Your task to perform on an android device: show emergency info Image 0: 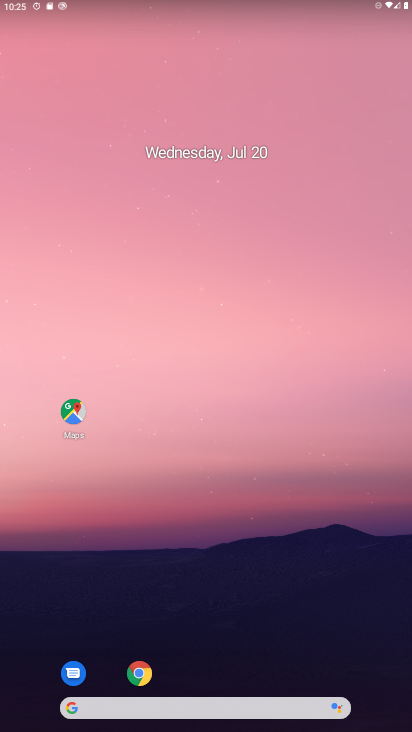
Step 0: drag from (356, 646) to (203, 78)
Your task to perform on an android device: show emergency info Image 1: 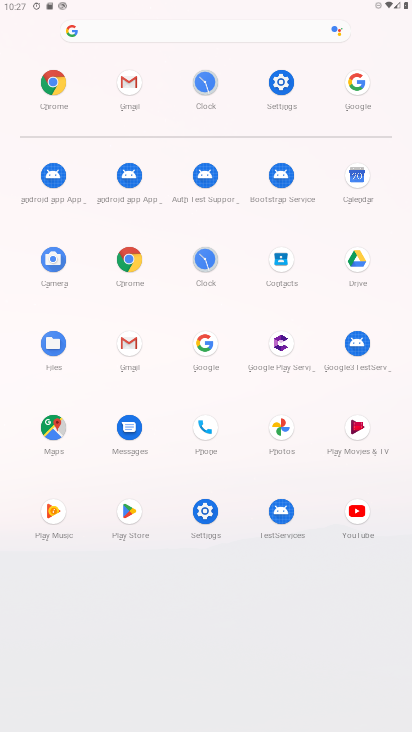
Step 1: click (209, 525)
Your task to perform on an android device: show emergency info Image 2: 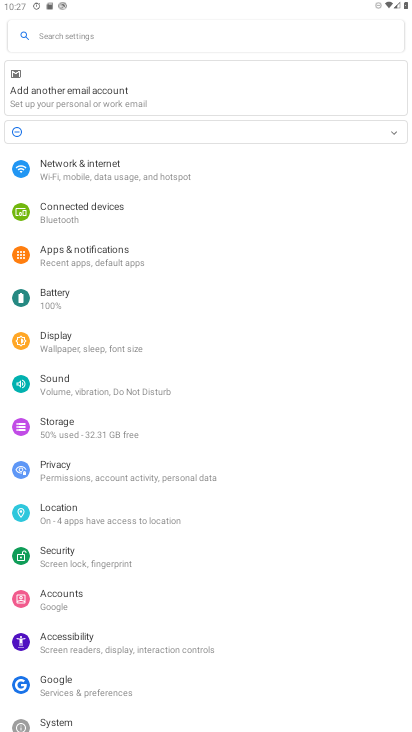
Step 2: drag from (109, 674) to (139, 124)
Your task to perform on an android device: show emergency info Image 3: 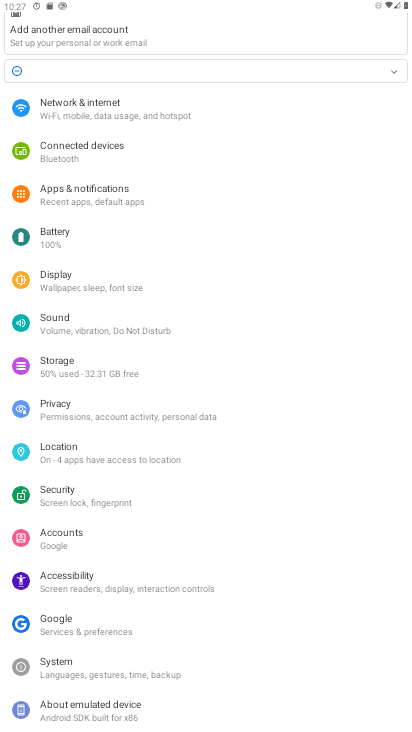
Step 3: click (89, 712)
Your task to perform on an android device: show emergency info Image 4: 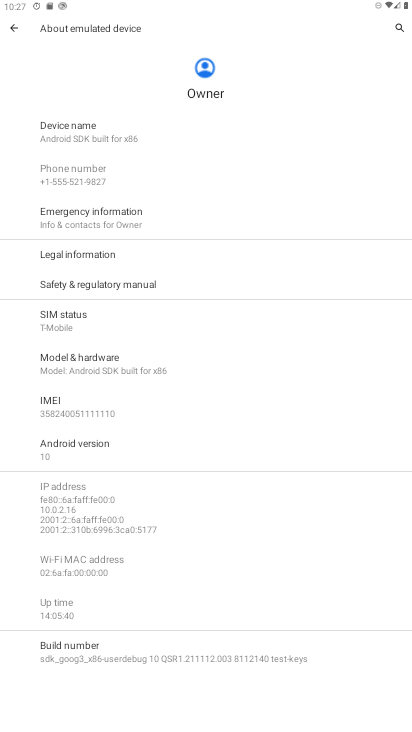
Step 4: click (116, 217)
Your task to perform on an android device: show emergency info Image 5: 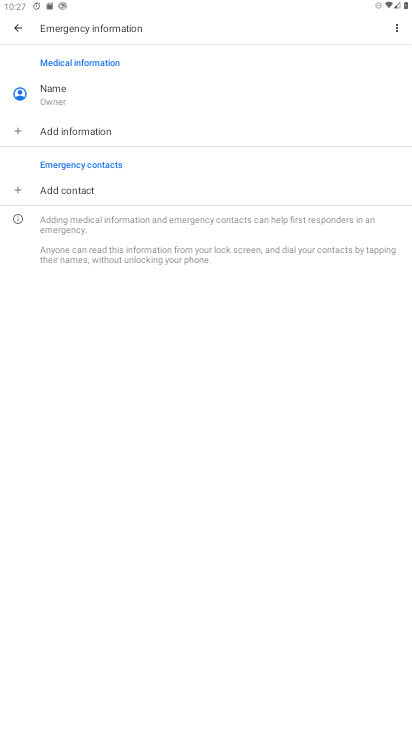
Step 5: task complete